Your task to perform on an android device: uninstall "DuckDuckGo Privacy Browser" Image 0: 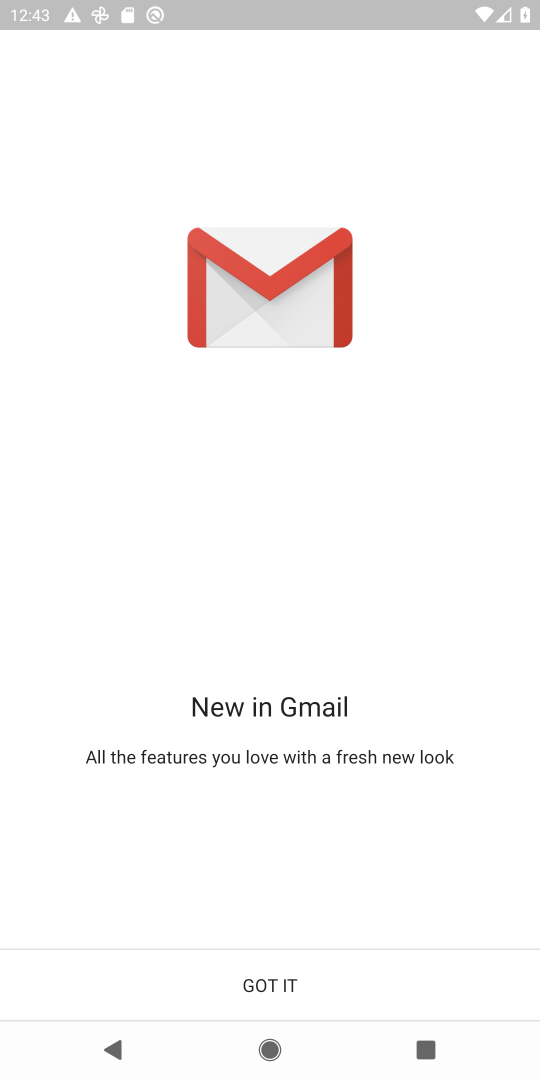
Step 0: press home button
Your task to perform on an android device: uninstall "DuckDuckGo Privacy Browser" Image 1: 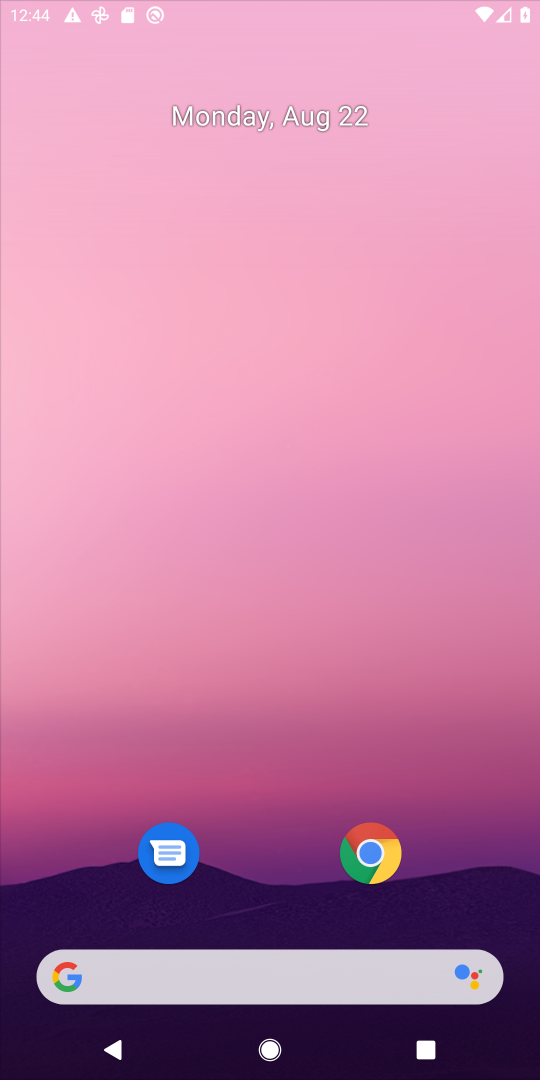
Step 1: drag from (275, 899) to (304, 90)
Your task to perform on an android device: uninstall "DuckDuckGo Privacy Browser" Image 2: 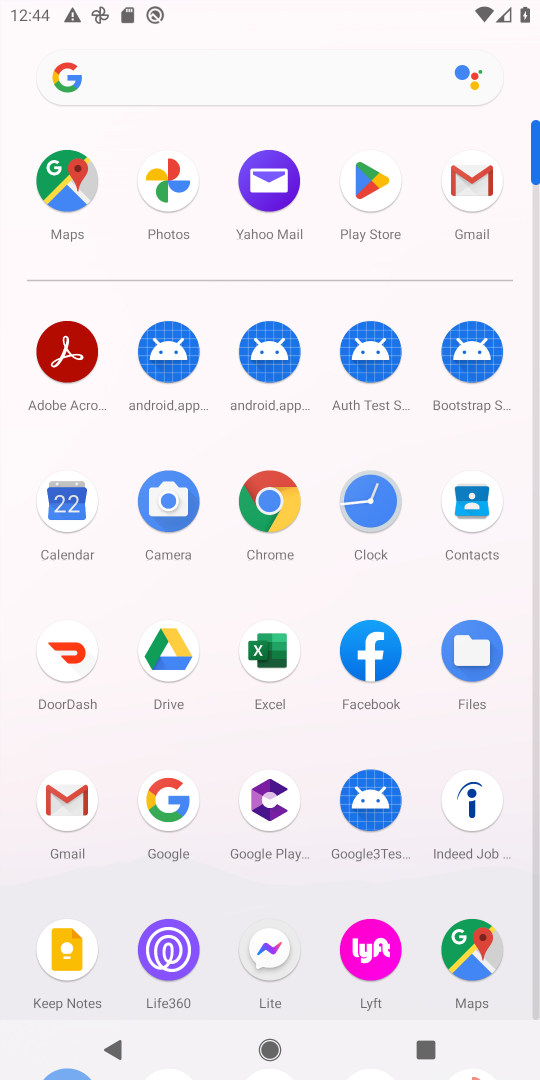
Step 2: click (374, 185)
Your task to perform on an android device: uninstall "DuckDuckGo Privacy Browser" Image 3: 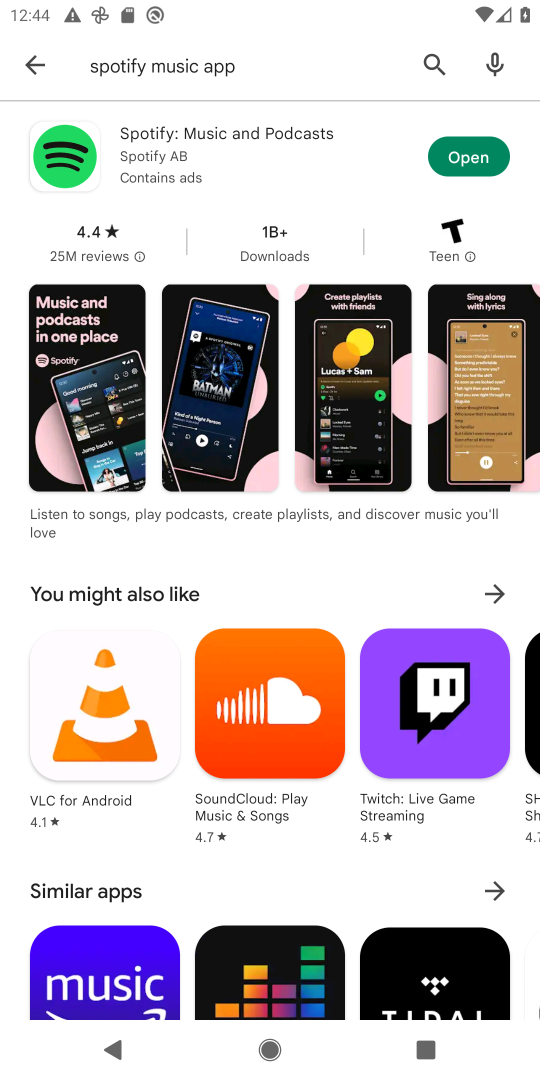
Step 3: click (21, 70)
Your task to perform on an android device: uninstall "DuckDuckGo Privacy Browser" Image 4: 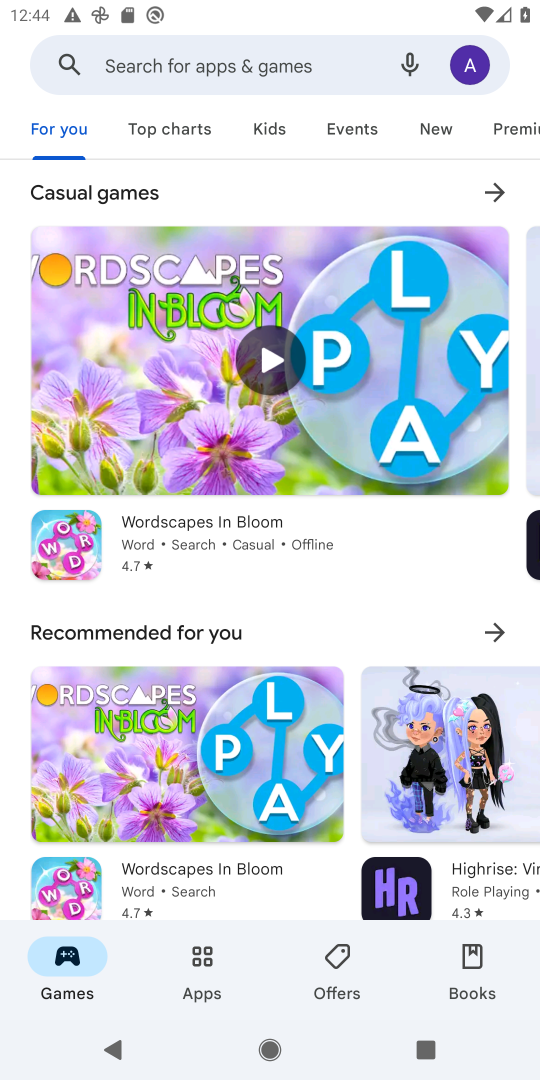
Step 4: click (248, 42)
Your task to perform on an android device: uninstall "DuckDuckGo Privacy Browser" Image 5: 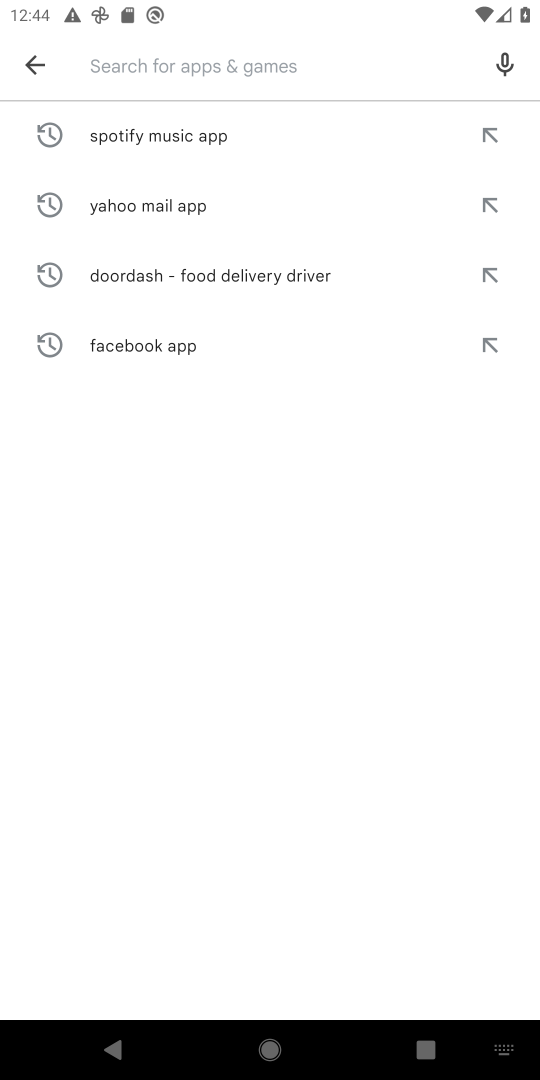
Step 5: type "DuckDuckGo Privacy Browser "
Your task to perform on an android device: uninstall "DuckDuckGo Privacy Browser" Image 6: 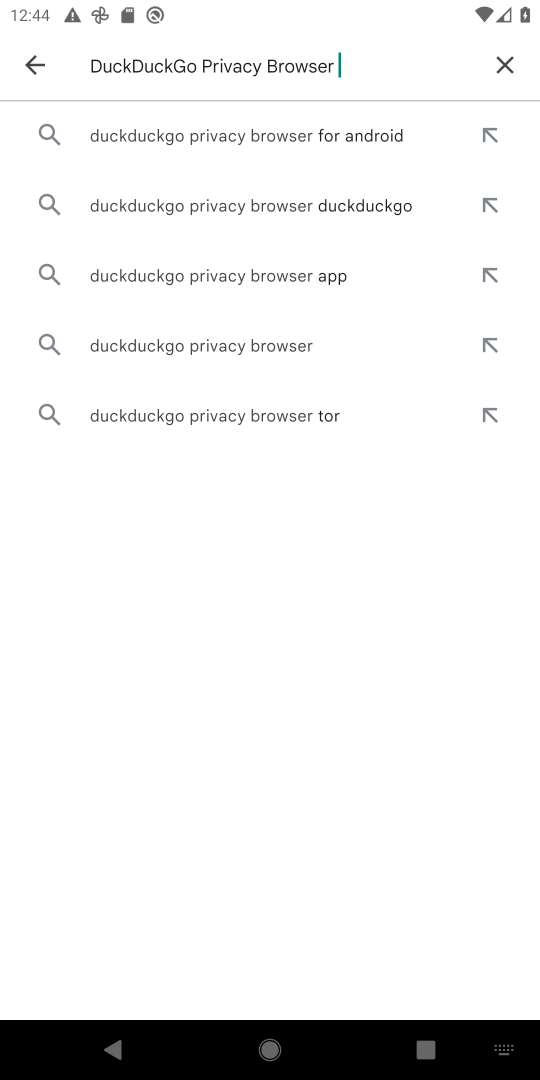
Step 6: click (208, 145)
Your task to perform on an android device: uninstall "DuckDuckGo Privacy Browser" Image 7: 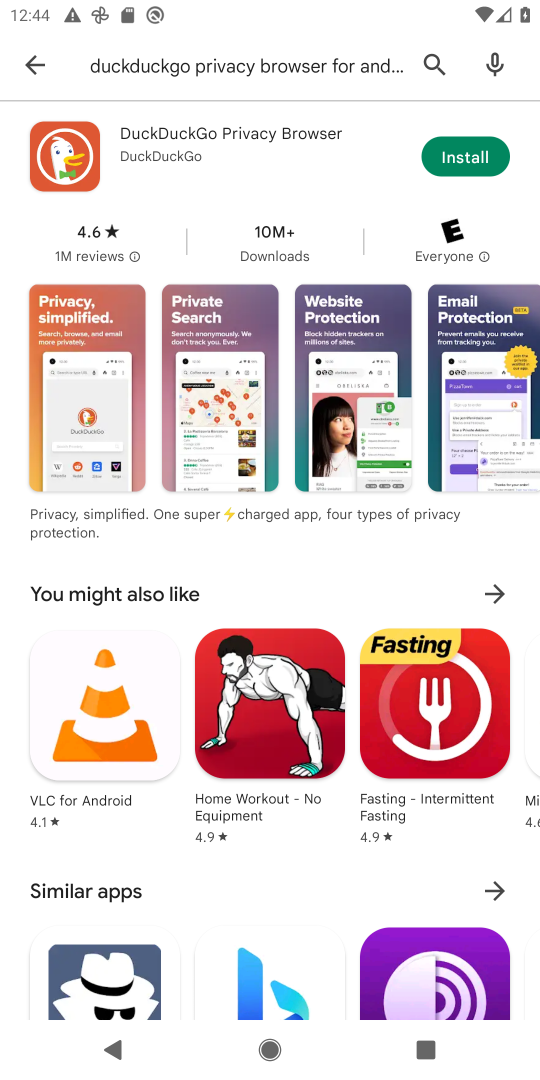
Step 7: click (460, 158)
Your task to perform on an android device: uninstall "DuckDuckGo Privacy Browser" Image 8: 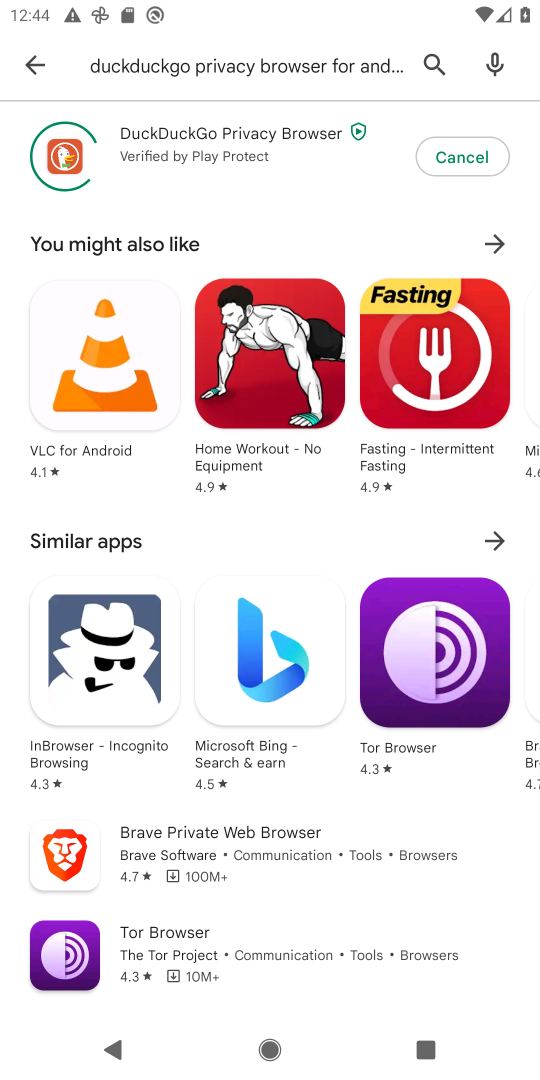
Step 8: click (460, 158)
Your task to perform on an android device: uninstall "DuckDuckGo Privacy Browser" Image 9: 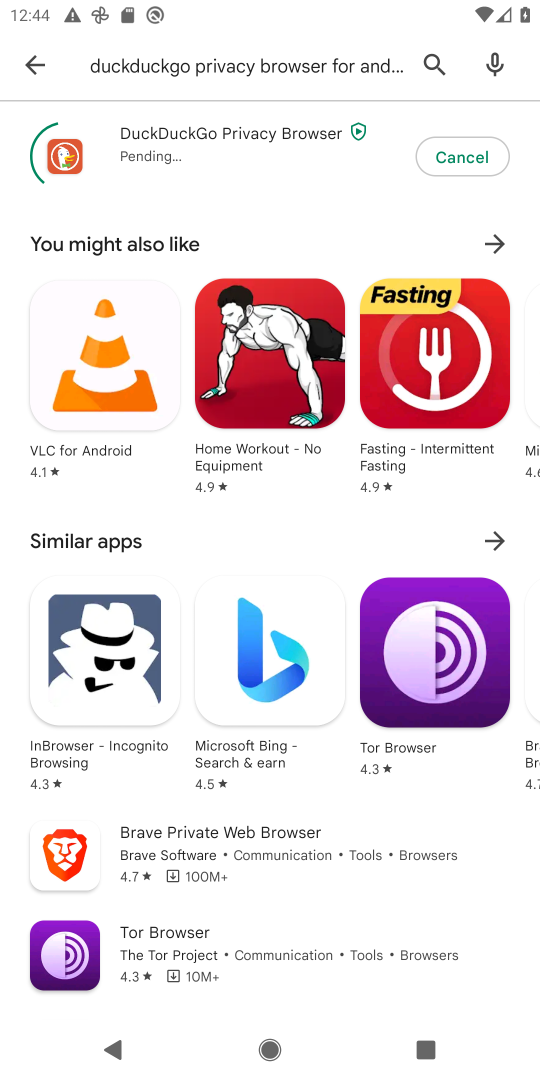
Step 9: click (216, 152)
Your task to perform on an android device: uninstall "DuckDuckGo Privacy Browser" Image 10: 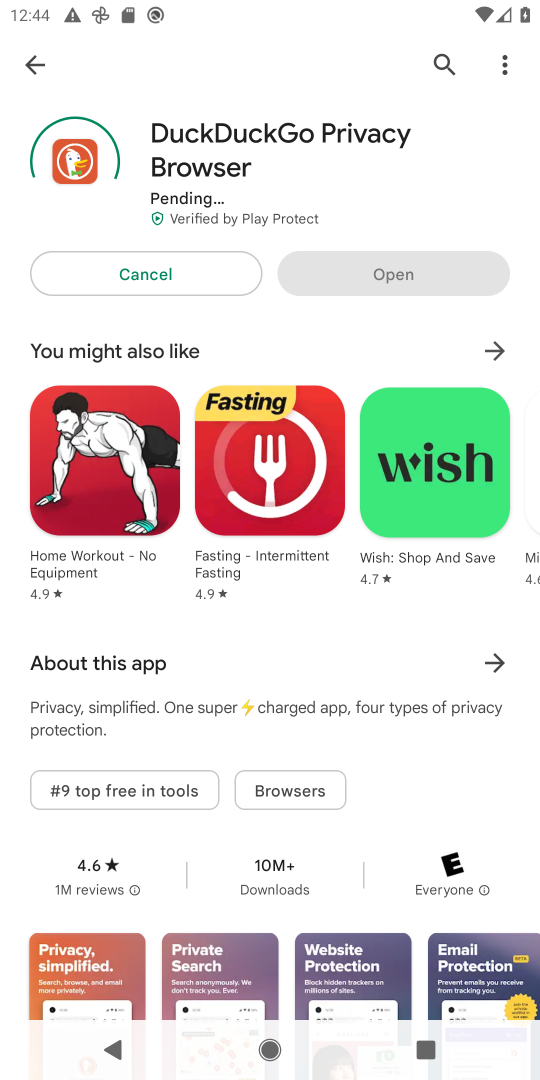
Step 10: click (159, 280)
Your task to perform on an android device: uninstall "DuckDuckGo Privacy Browser" Image 11: 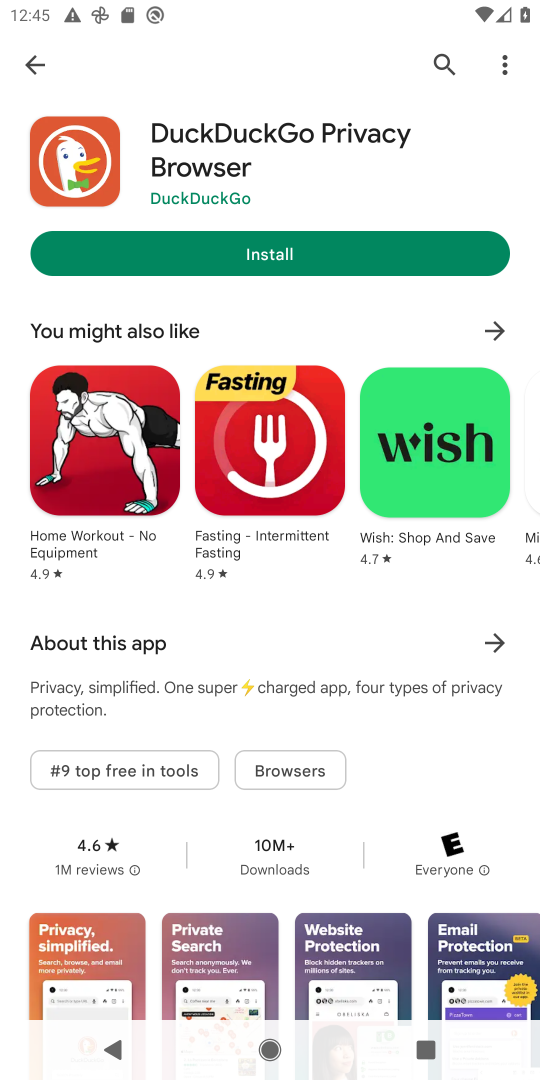
Step 11: task complete